Your task to perform on an android device: turn on improve location accuracy Image 0: 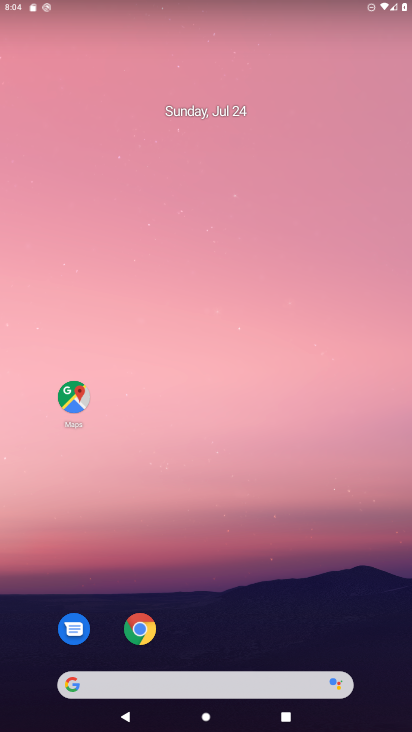
Step 0: drag from (297, 611) to (203, 28)
Your task to perform on an android device: turn on improve location accuracy Image 1: 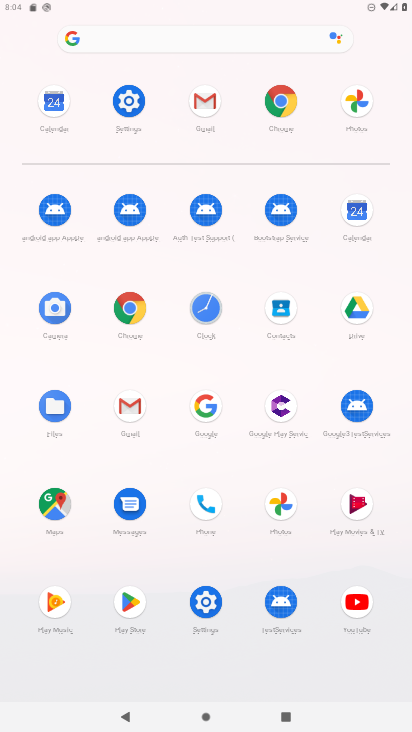
Step 1: click (212, 598)
Your task to perform on an android device: turn on improve location accuracy Image 2: 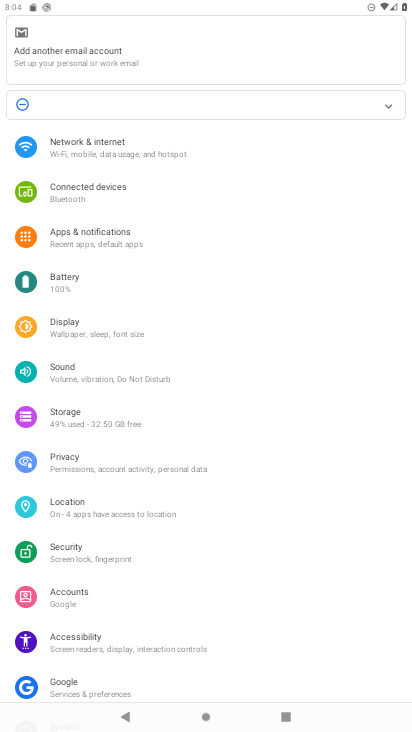
Step 2: click (51, 499)
Your task to perform on an android device: turn on improve location accuracy Image 3: 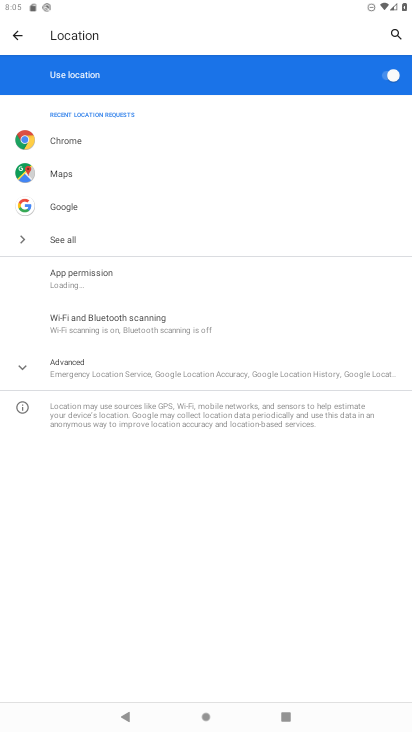
Step 3: click (108, 372)
Your task to perform on an android device: turn on improve location accuracy Image 4: 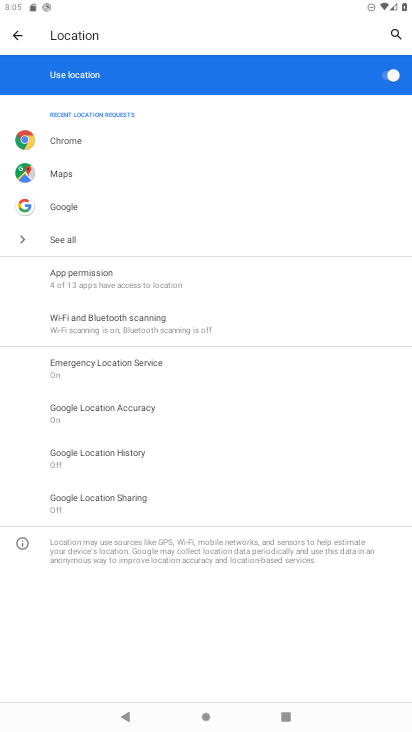
Step 4: click (149, 414)
Your task to perform on an android device: turn on improve location accuracy Image 5: 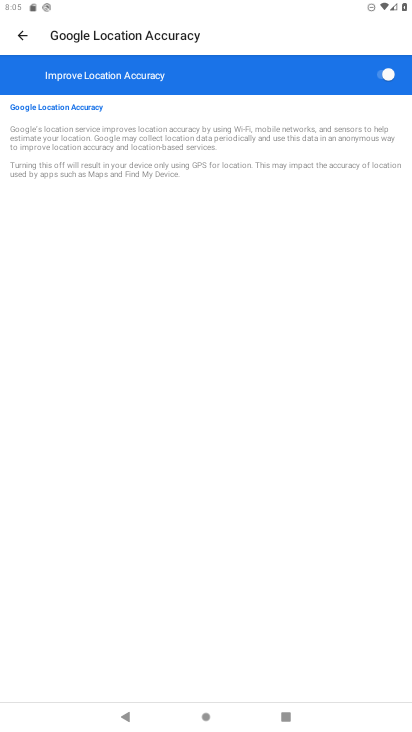
Step 5: task complete